Your task to perform on an android device: Open Google Chrome and open the bookmarks view Image 0: 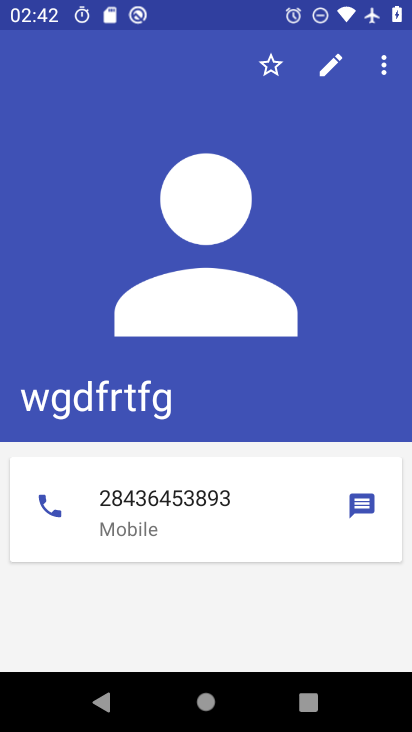
Step 0: press home button
Your task to perform on an android device: Open Google Chrome and open the bookmarks view Image 1: 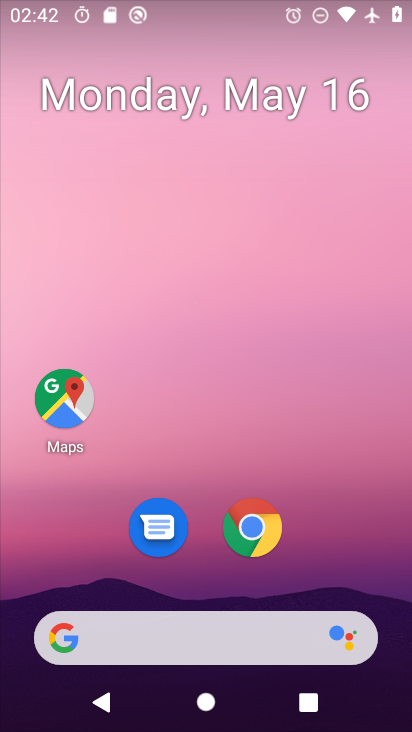
Step 1: click (245, 541)
Your task to perform on an android device: Open Google Chrome and open the bookmarks view Image 2: 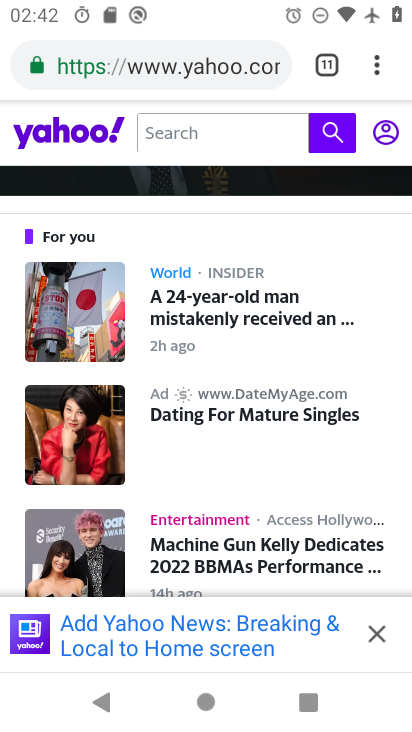
Step 2: task complete